Your task to perform on an android device: Open maps Image 0: 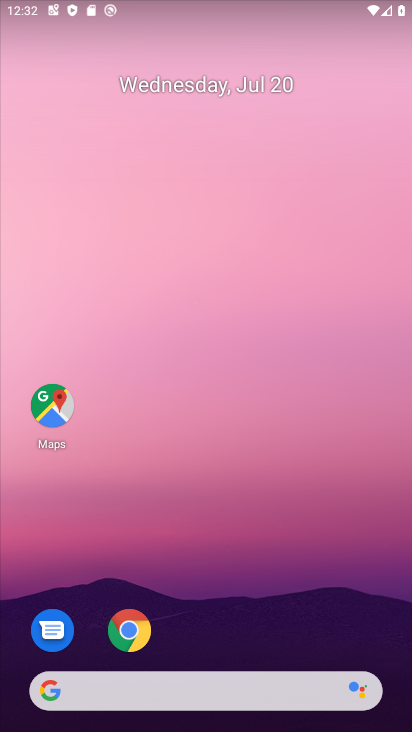
Step 0: click (49, 405)
Your task to perform on an android device: Open maps Image 1: 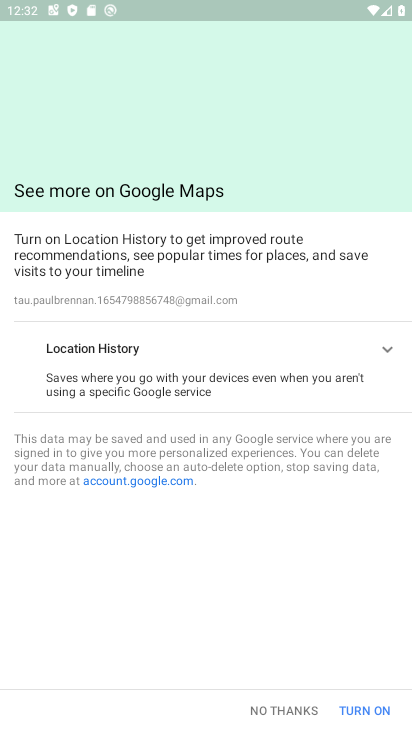
Step 1: task complete